Your task to perform on an android device: toggle airplane mode Image 0: 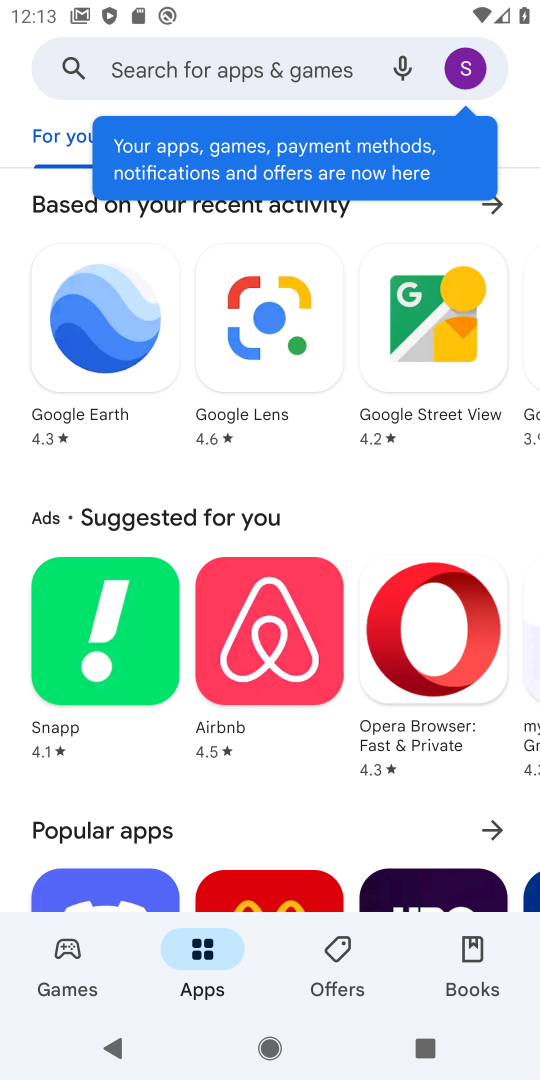
Step 0: task complete